Your task to perform on an android device: Search for seafood restaurants on Google Maps Image 0: 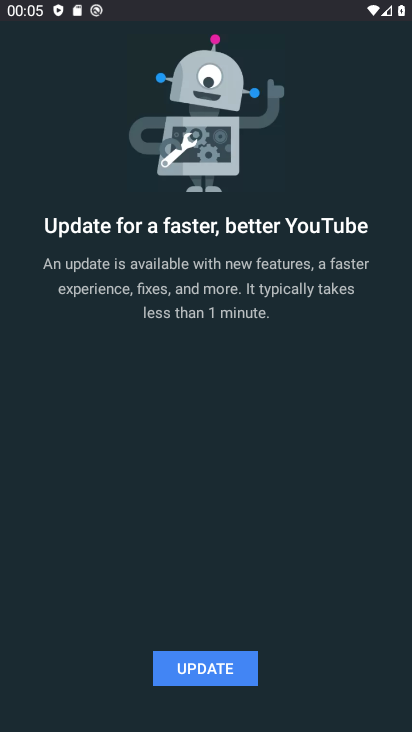
Step 0: press home button
Your task to perform on an android device: Search for seafood restaurants on Google Maps Image 1: 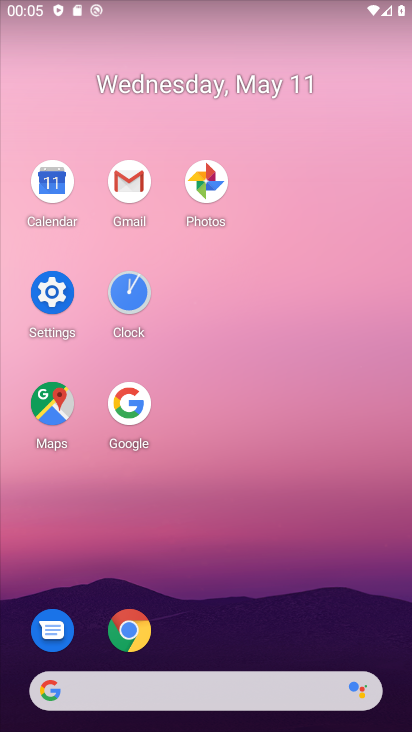
Step 1: click (54, 413)
Your task to perform on an android device: Search for seafood restaurants on Google Maps Image 2: 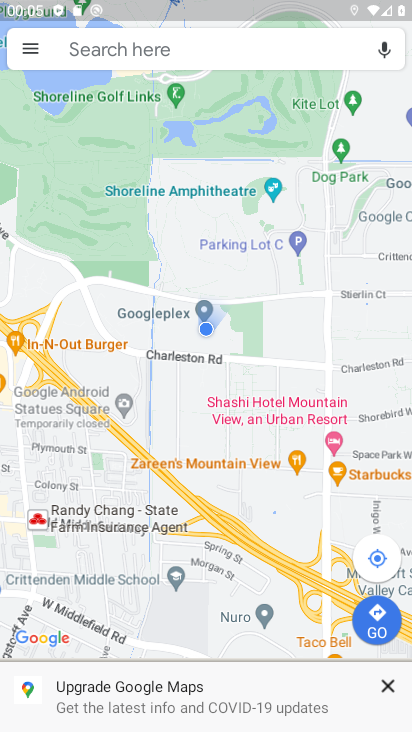
Step 2: click (228, 47)
Your task to perform on an android device: Search for seafood restaurants on Google Maps Image 3: 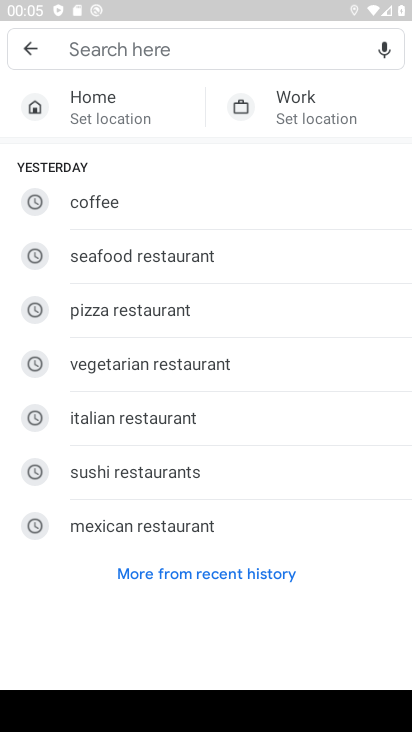
Step 3: click (196, 254)
Your task to perform on an android device: Search for seafood restaurants on Google Maps Image 4: 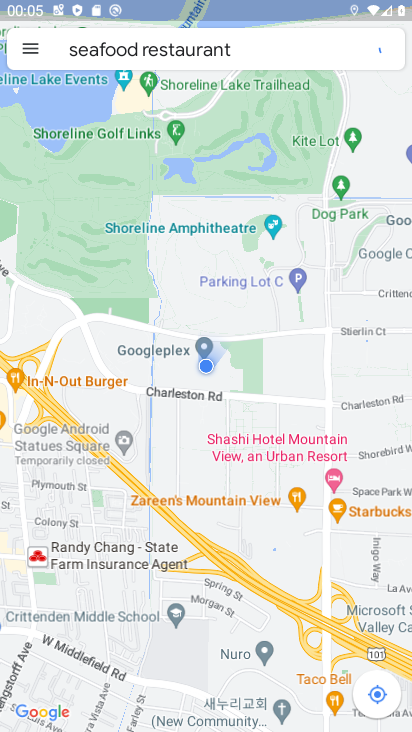
Step 4: task complete